Your task to perform on an android device: show emergency info Image 0: 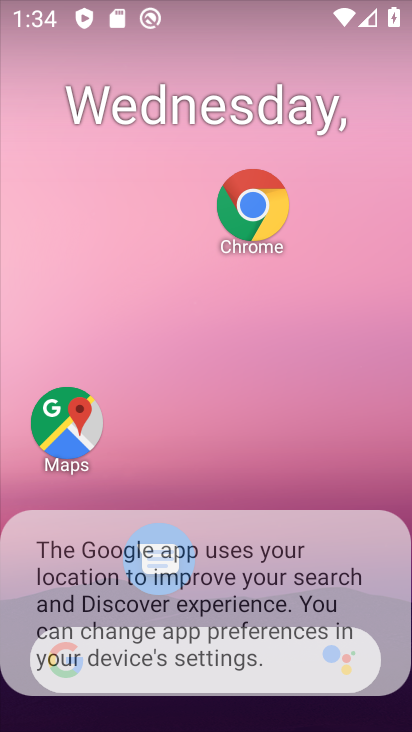
Step 0: drag from (211, 628) to (211, 266)
Your task to perform on an android device: show emergency info Image 1: 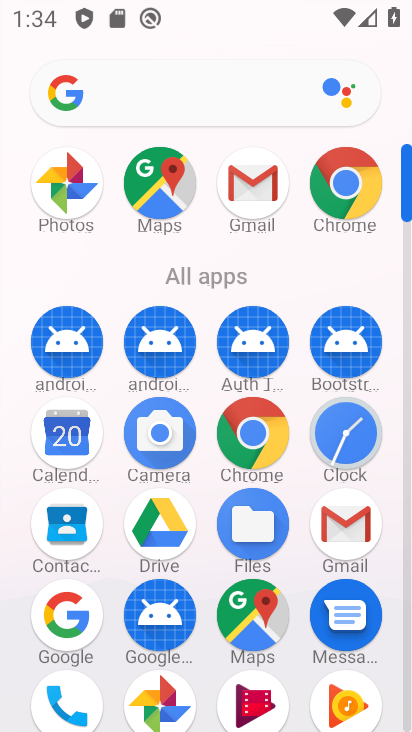
Step 1: drag from (211, 513) to (215, 295)
Your task to perform on an android device: show emergency info Image 2: 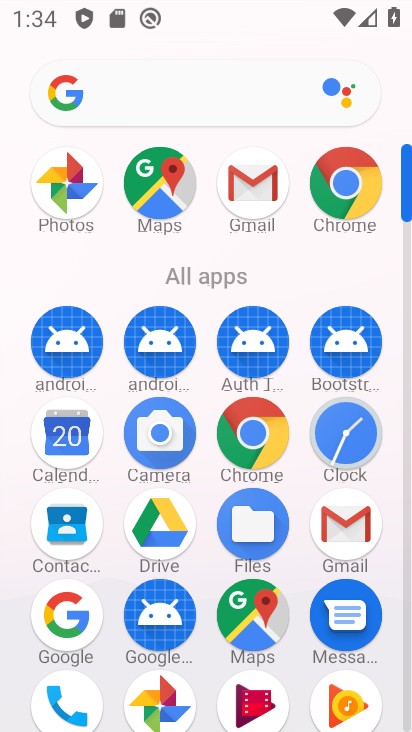
Step 2: drag from (206, 637) to (206, 333)
Your task to perform on an android device: show emergency info Image 3: 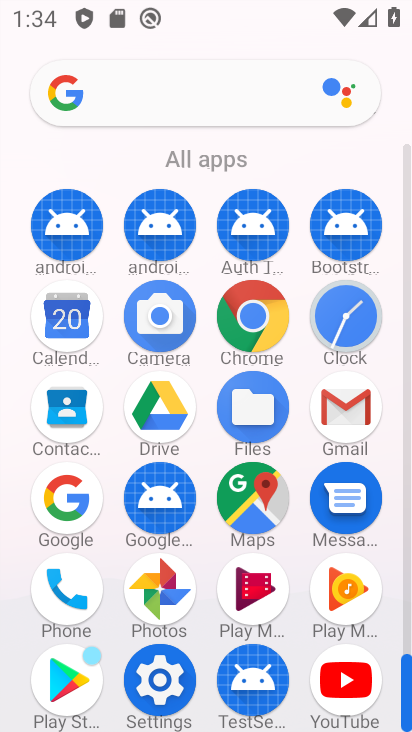
Step 3: click (161, 683)
Your task to perform on an android device: show emergency info Image 4: 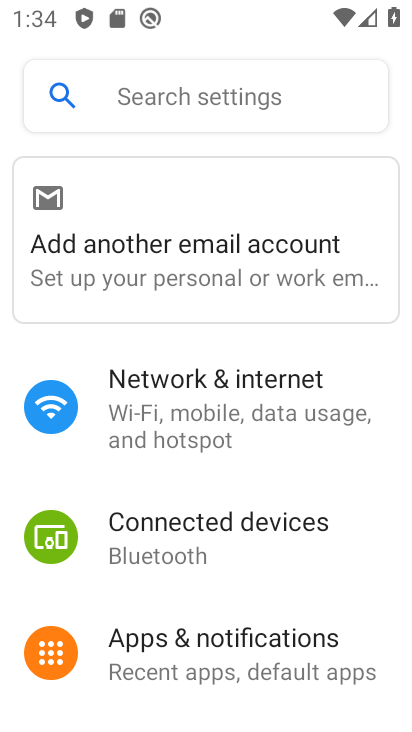
Step 4: drag from (192, 671) to (192, 338)
Your task to perform on an android device: show emergency info Image 5: 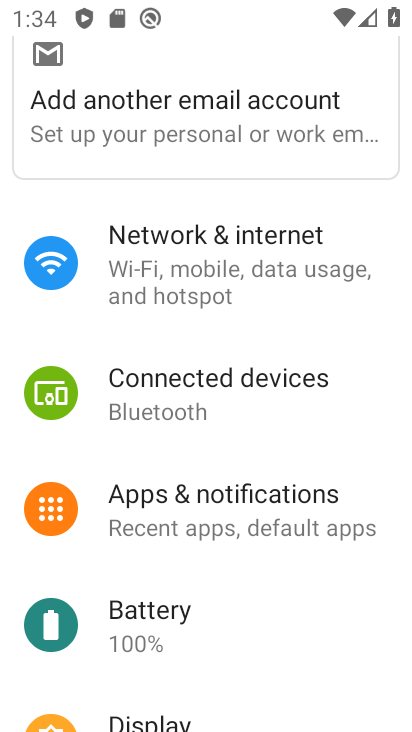
Step 5: drag from (199, 707) to (223, 421)
Your task to perform on an android device: show emergency info Image 6: 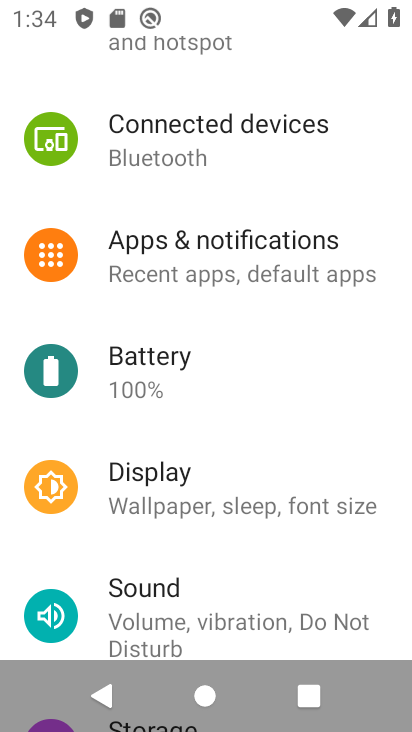
Step 6: drag from (211, 639) to (194, 364)
Your task to perform on an android device: show emergency info Image 7: 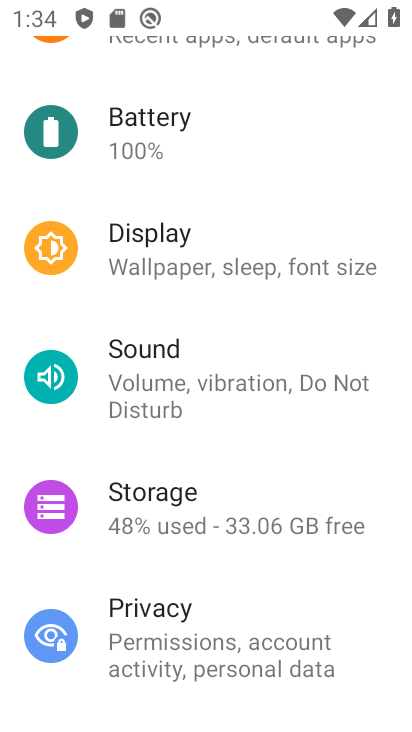
Step 7: drag from (200, 706) to (205, 320)
Your task to perform on an android device: show emergency info Image 8: 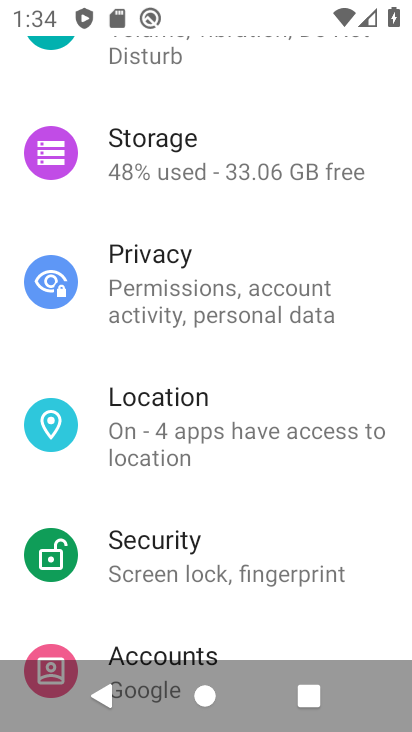
Step 8: drag from (217, 625) to (227, 249)
Your task to perform on an android device: show emergency info Image 9: 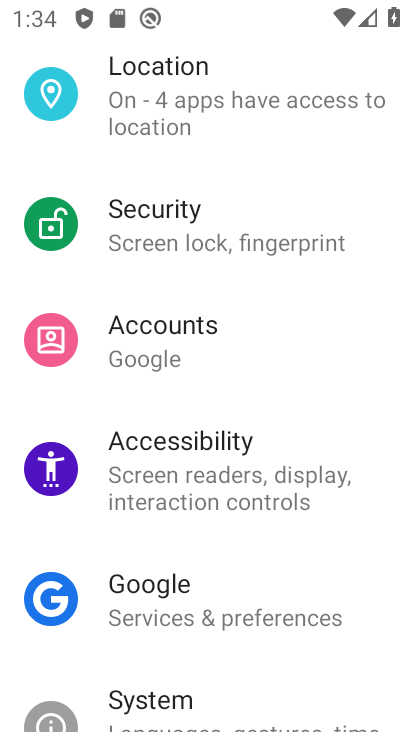
Step 9: drag from (213, 712) to (246, 306)
Your task to perform on an android device: show emergency info Image 10: 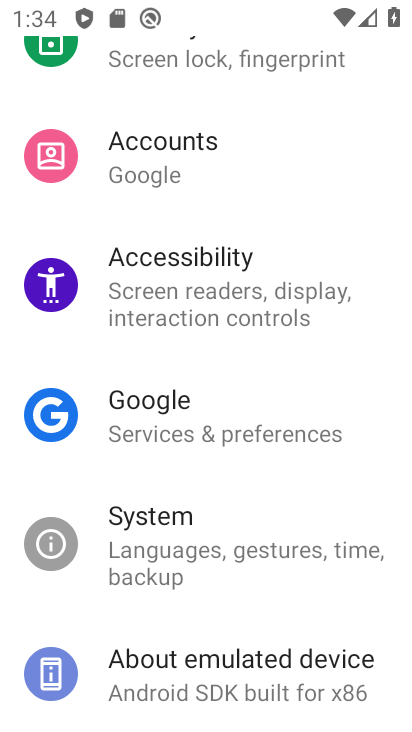
Step 10: click (229, 683)
Your task to perform on an android device: show emergency info Image 11: 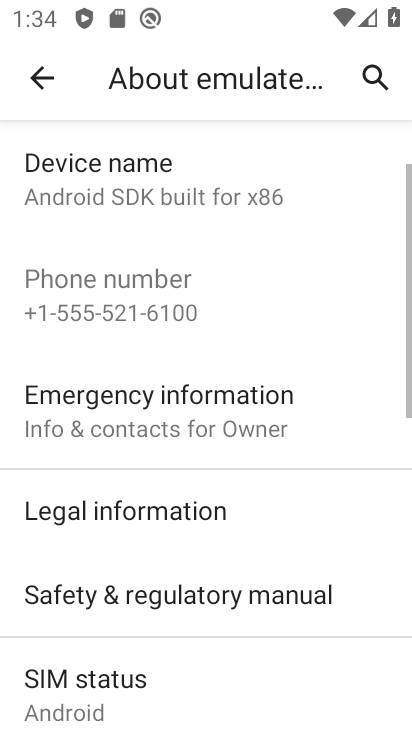
Step 11: click (195, 407)
Your task to perform on an android device: show emergency info Image 12: 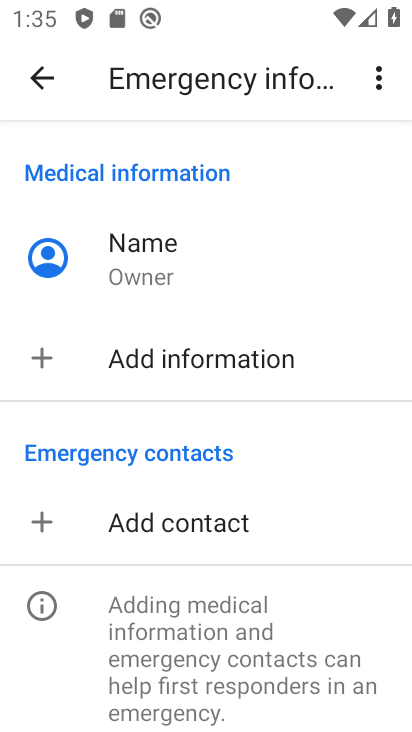
Step 12: task complete